Your task to perform on an android device: turn on translation in the chrome app Image 0: 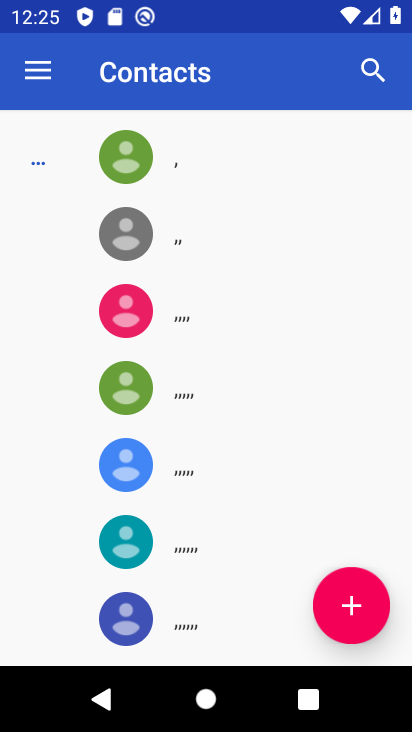
Step 0: press home button
Your task to perform on an android device: turn on translation in the chrome app Image 1: 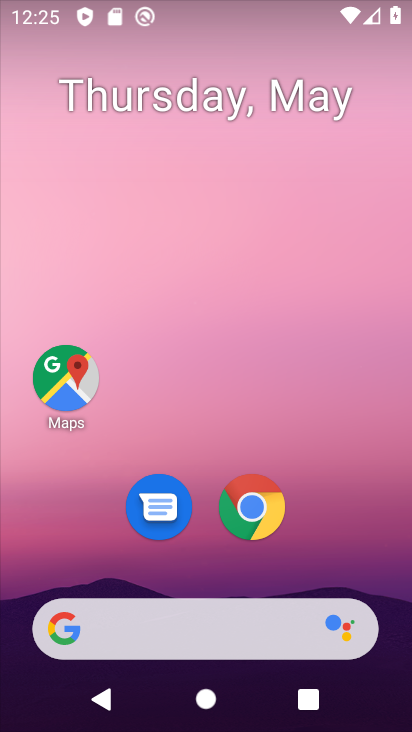
Step 1: click (250, 488)
Your task to perform on an android device: turn on translation in the chrome app Image 2: 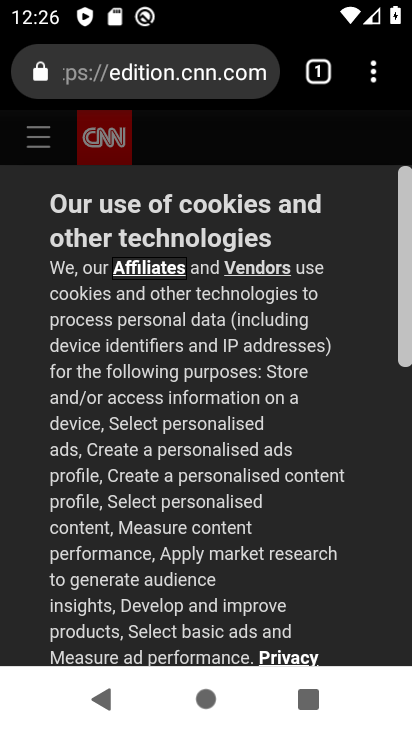
Step 2: click (373, 72)
Your task to perform on an android device: turn on translation in the chrome app Image 3: 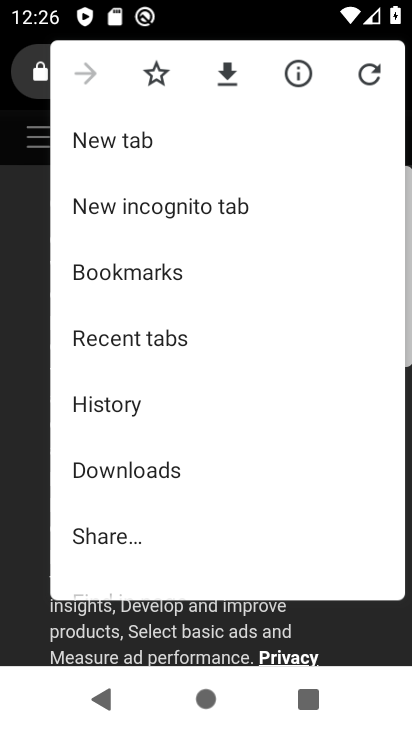
Step 3: drag from (164, 558) to (201, 155)
Your task to perform on an android device: turn on translation in the chrome app Image 4: 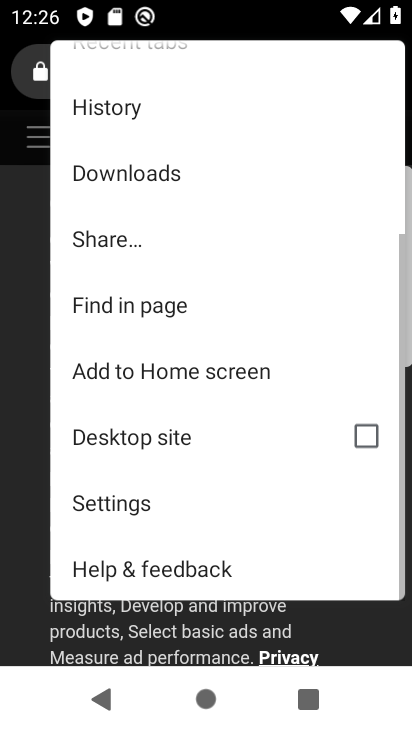
Step 4: click (126, 500)
Your task to perform on an android device: turn on translation in the chrome app Image 5: 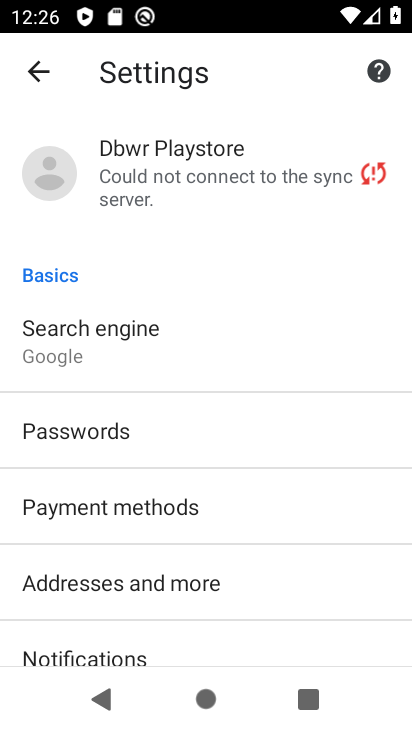
Step 5: drag from (105, 668) to (150, 251)
Your task to perform on an android device: turn on translation in the chrome app Image 6: 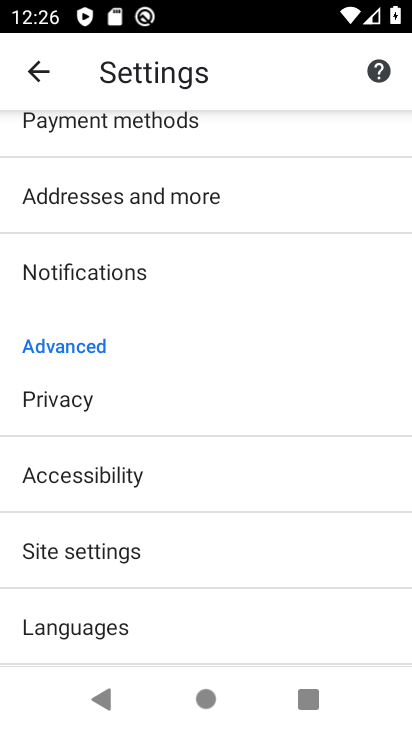
Step 6: click (122, 555)
Your task to perform on an android device: turn on translation in the chrome app Image 7: 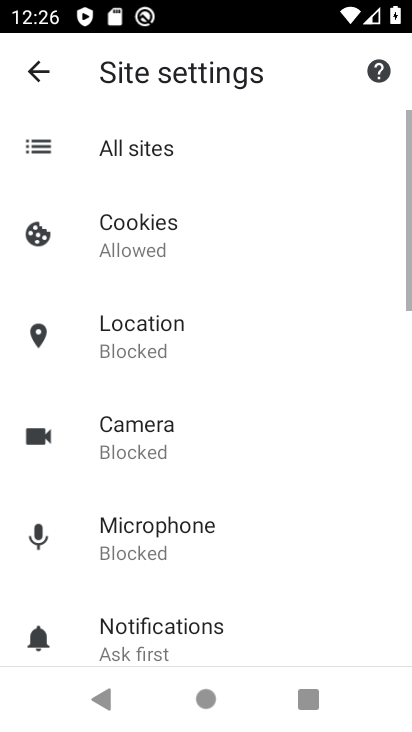
Step 7: click (34, 56)
Your task to perform on an android device: turn on translation in the chrome app Image 8: 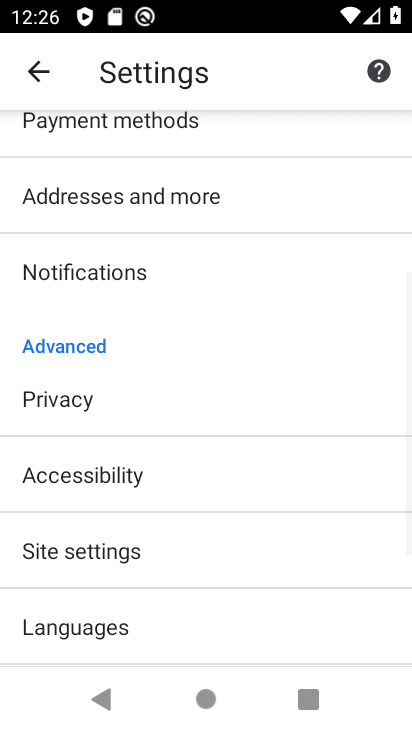
Step 8: click (79, 630)
Your task to perform on an android device: turn on translation in the chrome app Image 9: 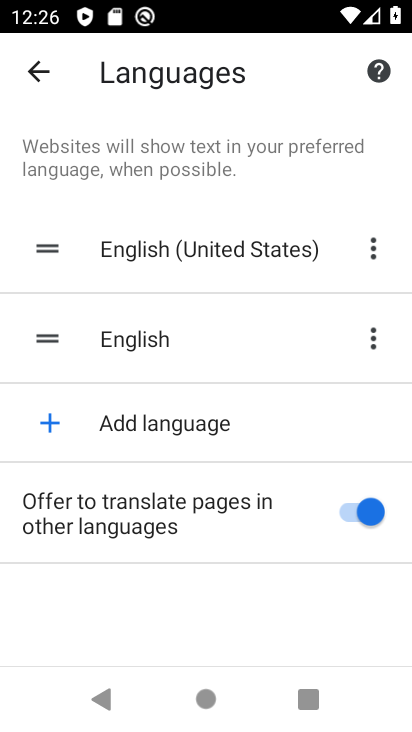
Step 9: task complete